Your task to perform on an android device: Search for handmade jewelry on Etsy. Image 0: 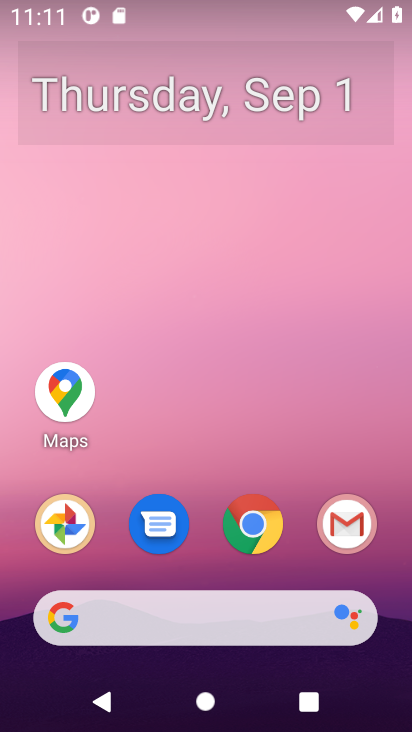
Step 0: press home button
Your task to perform on an android device: Search for handmade jewelry on Etsy. Image 1: 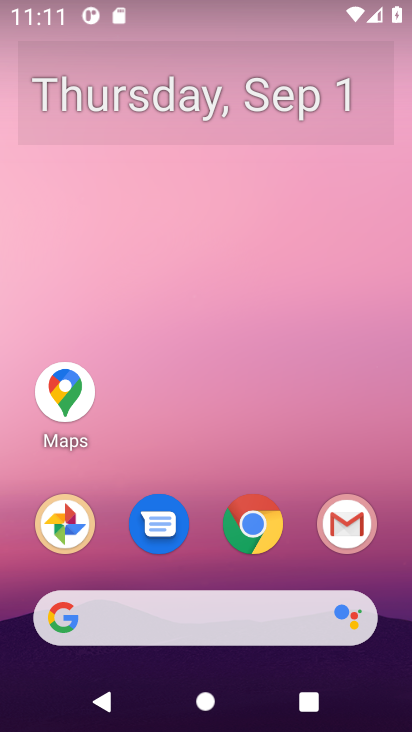
Step 1: drag from (397, 524) to (369, 58)
Your task to perform on an android device: Search for handmade jewelry on Etsy. Image 2: 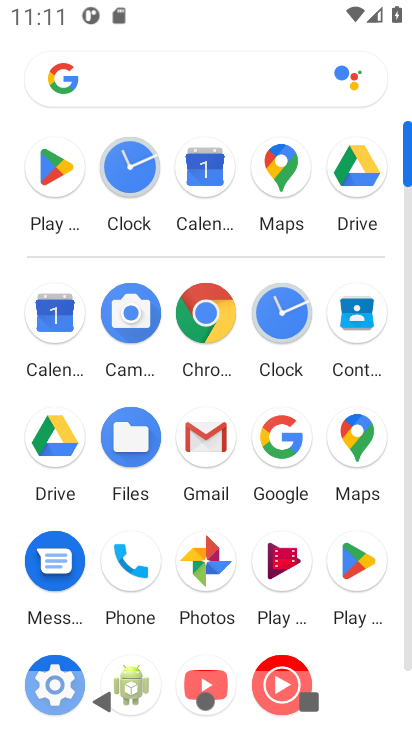
Step 2: click (212, 317)
Your task to perform on an android device: Search for handmade jewelry on Etsy. Image 3: 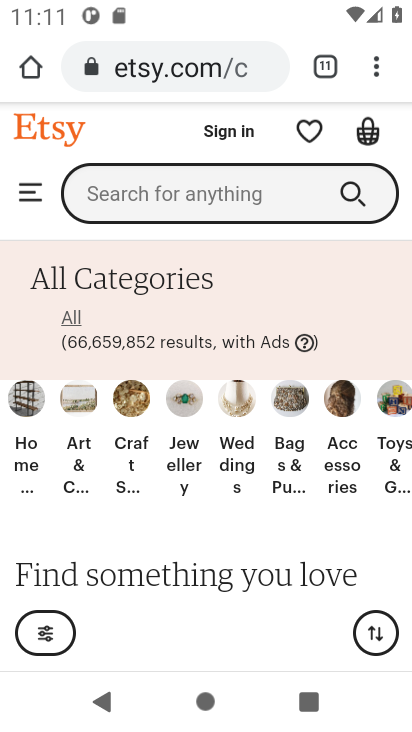
Step 3: click (190, 68)
Your task to perform on an android device: Search for handmade jewelry on Etsy. Image 4: 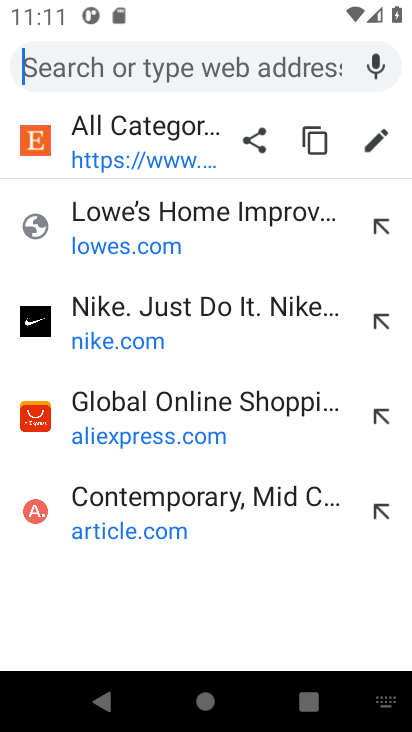
Step 4: press enter
Your task to perform on an android device: Search for handmade jewelry on Etsy. Image 5: 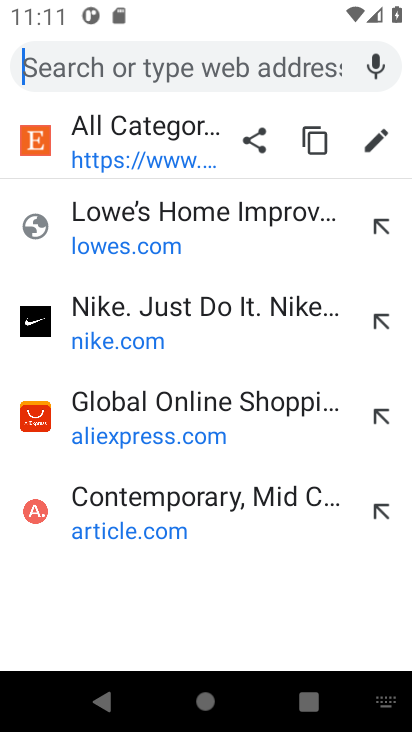
Step 5: type "etsy"
Your task to perform on an android device: Search for handmade jewelry on Etsy. Image 6: 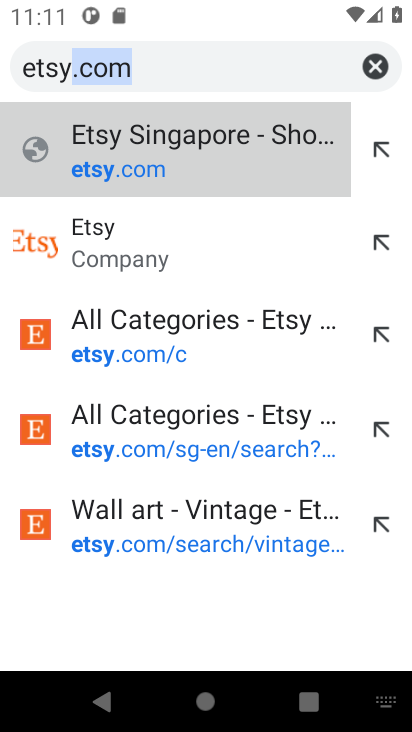
Step 6: click (289, 151)
Your task to perform on an android device: Search for handmade jewelry on Etsy. Image 7: 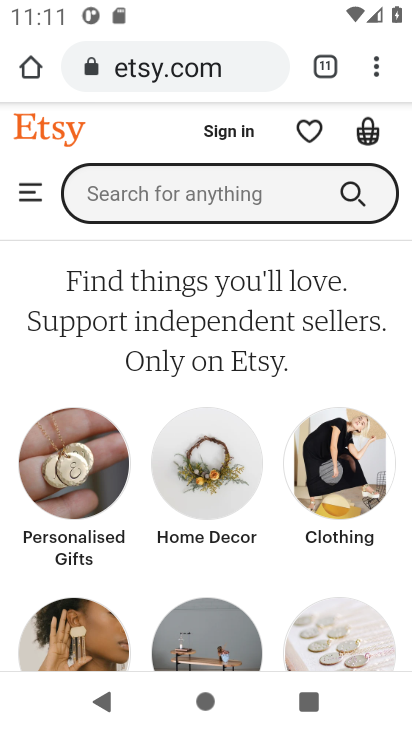
Step 7: click (274, 189)
Your task to perform on an android device: Search for handmade jewelry on Etsy. Image 8: 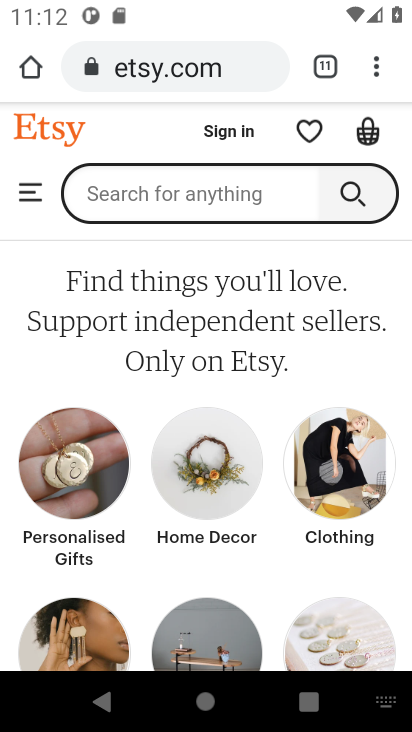
Step 8: type "handmade jewelry"
Your task to perform on an android device: Search for handmade jewelry on Etsy. Image 9: 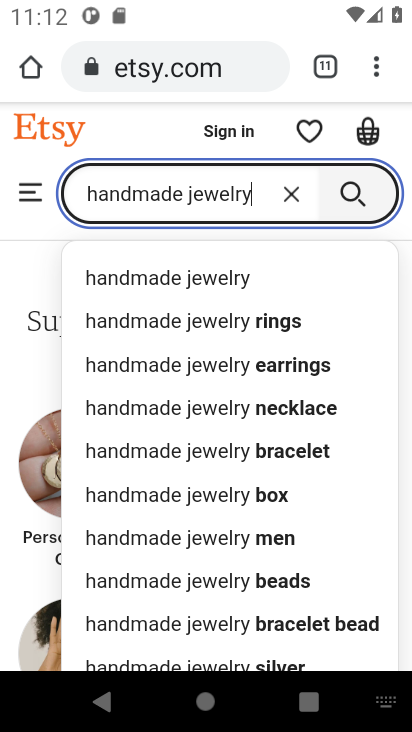
Step 9: click (216, 278)
Your task to perform on an android device: Search for handmade jewelry on Etsy. Image 10: 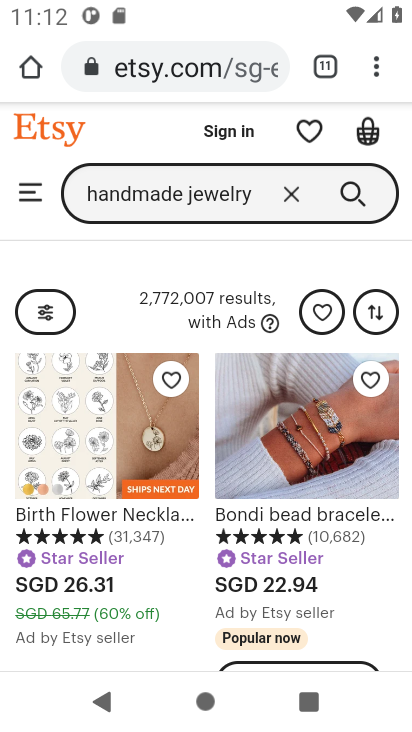
Step 10: task complete